Your task to perform on an android device: change your default location settings in chrome Image 0: 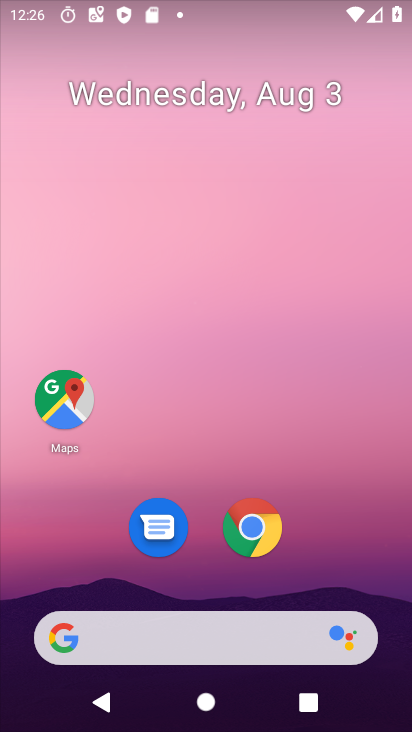
Step 0: click (254, 523)
Your task to perform on an android device: change your default location settings in chrome Image 1: 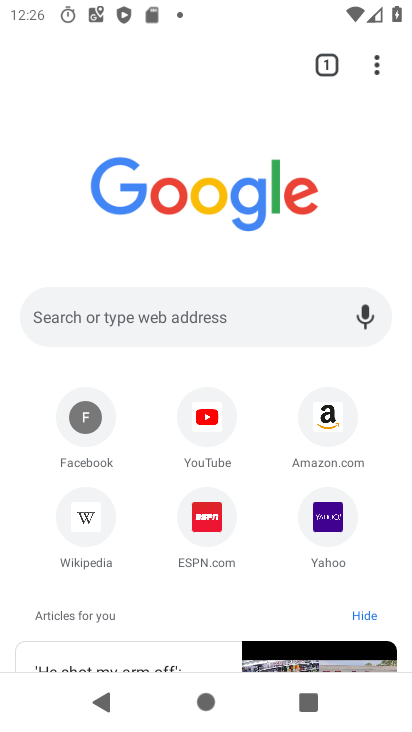
Step 1: click (376, 59)
Your task to perform on an android device: change your default location settings in chrome Image 2: 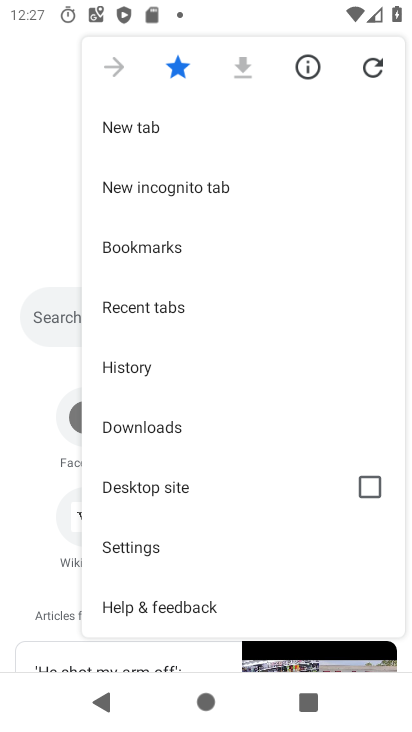
Step 2: drag from (137, 561) to (147, 314)
Your task to perform on an android device: change your default location settings in chrome Image 3: 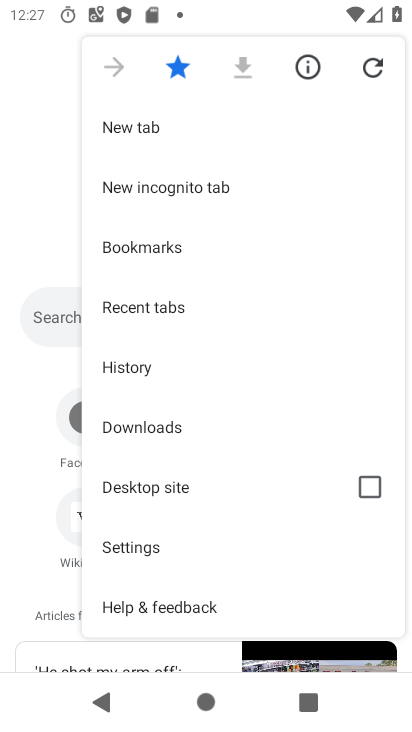
Step 3: click (146, 542)
Your task to perform on an android device: change your default location settings in chrome Image 4: 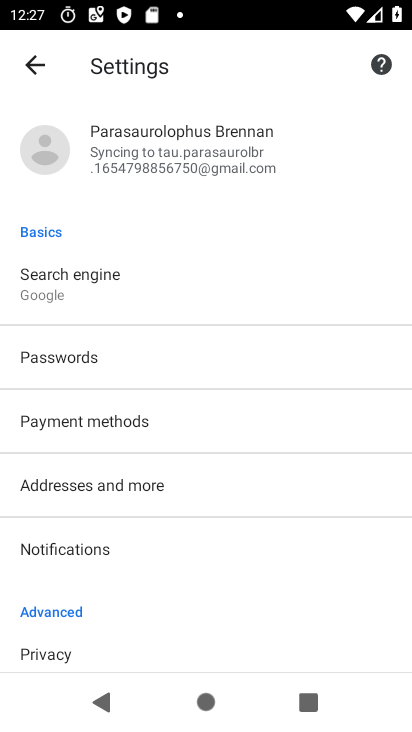
Step 4: drag from (89, 647) to (83, 470)
Your task to perform on an android device: change your default location settings in chrome Image 5: 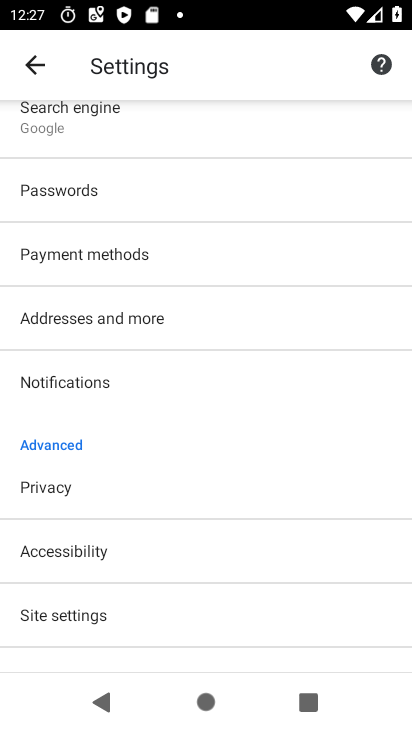
Step 5: click (92, 621)
Your task to perform on an android device: change your default location settings in chrome Image 6: 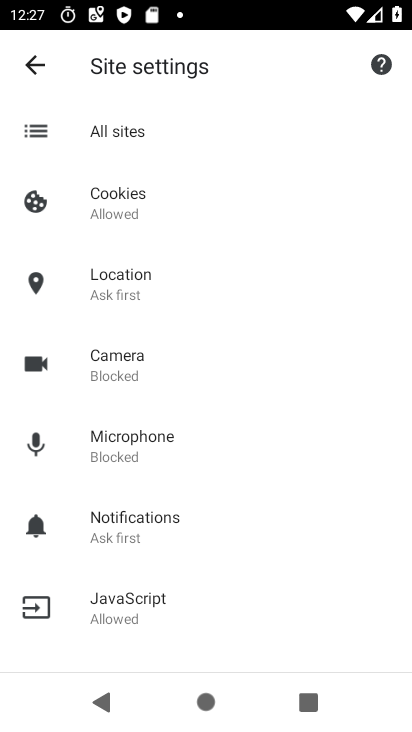
Step 6: click (146, 288)
Your task to perform on an android device: change your default location settings in chrome Image 7: 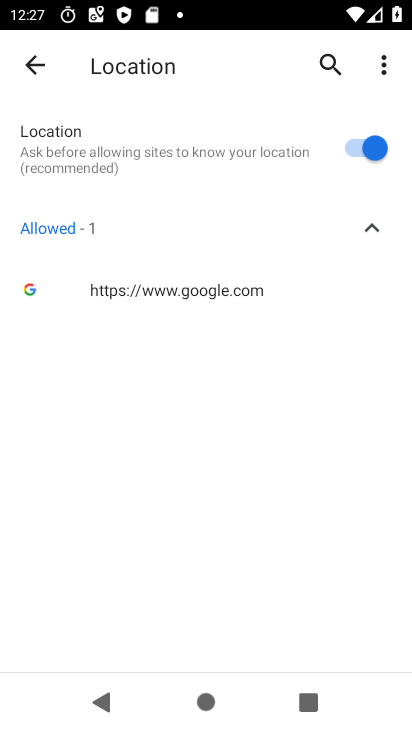
Step 7: click (342, 149)
Your task to perform on an android device: change your default location settings in chrome Image 8: 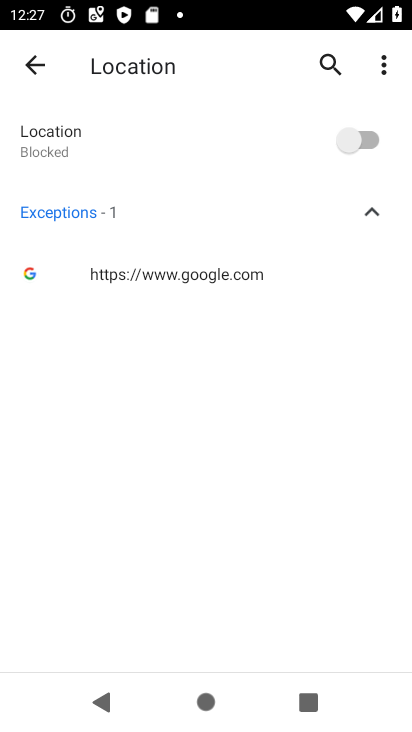
Step 8: task complete